Your task to perform on an android device: change timer sound Image 0: 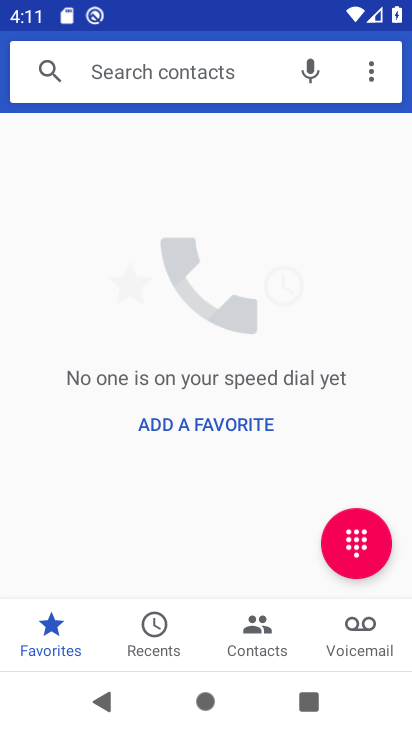
Step 0: press home button
Your task to perform on an android device: change timer sound Image 1: 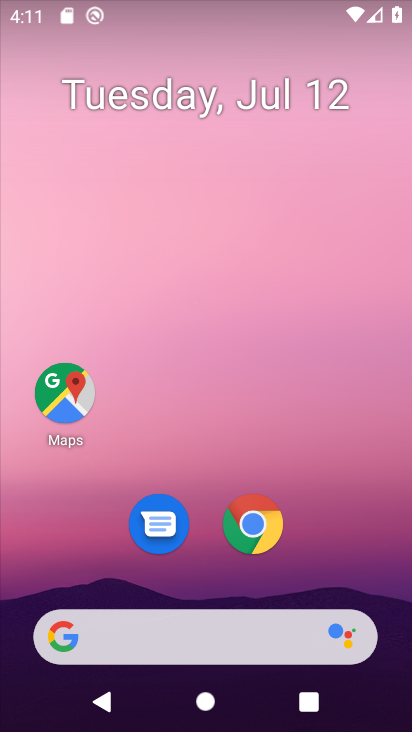
Step 1: drag from (310, 462) to (309, 8)
Your task to perform on an android device: change timer sound Image 2: 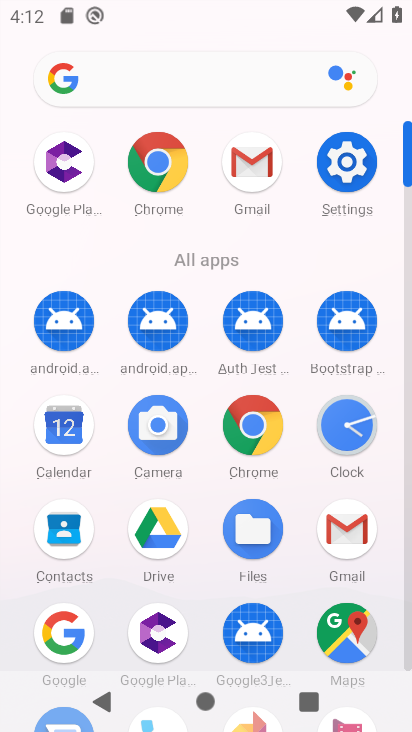
Step 2: click (353, 167)
Your task to perform on an android device: change timer sound Image 3: 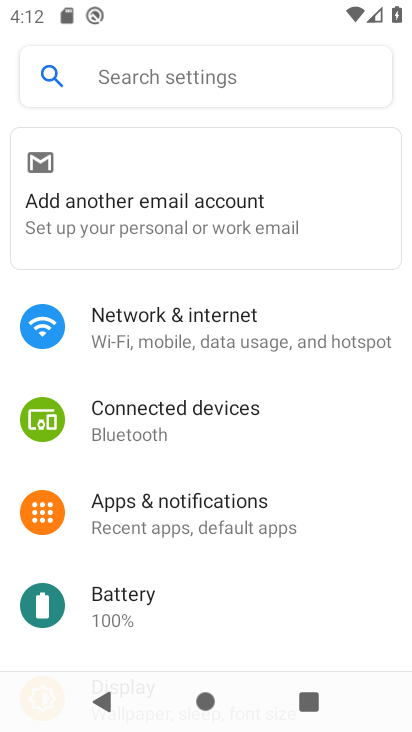
Step 3: drag from (329, 413) to (305, 0)
Your task to perform on an android device: change timer sound Image 4: 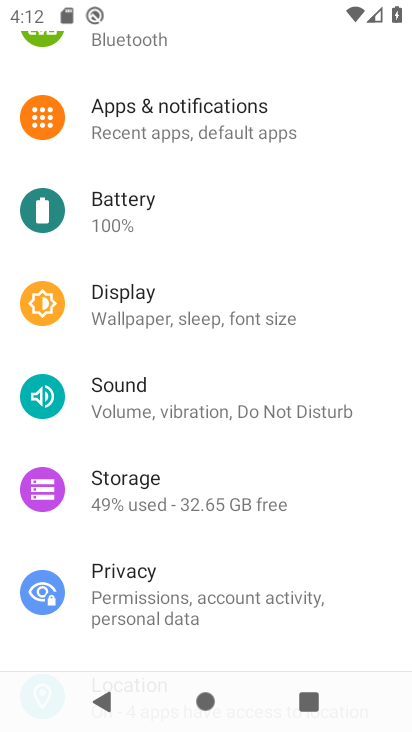
Step 4: press home button
Your task to perform on an android device: change timer sound Image 5: 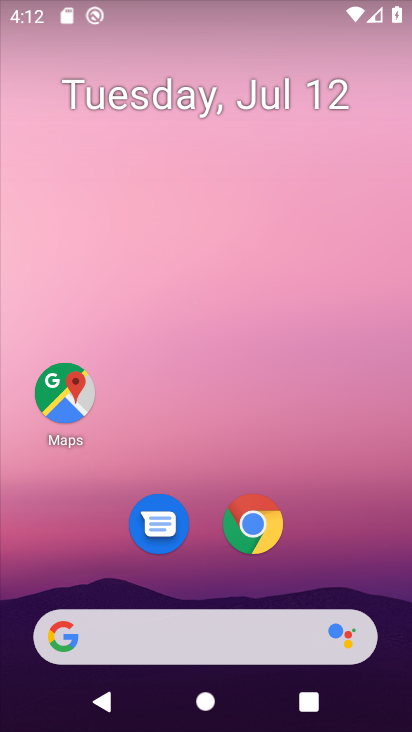
Step 5: drag from (346, 549) to (335, 9)
Your task to perform on an android device: change timer sound Image 6: 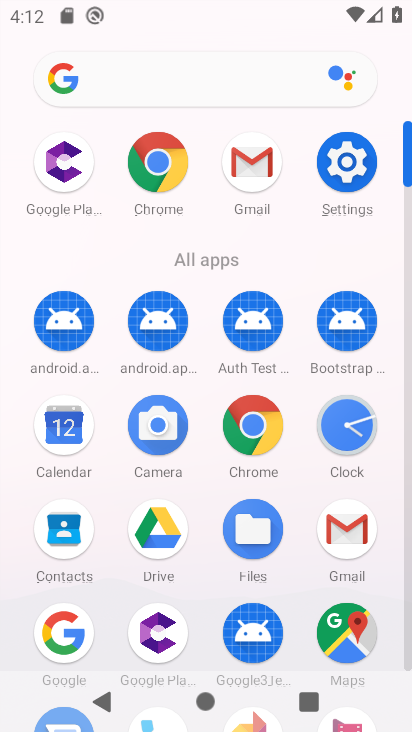
Step 6: click (345, 424)
Your task to perform on an android device: change timer sound Image 7: 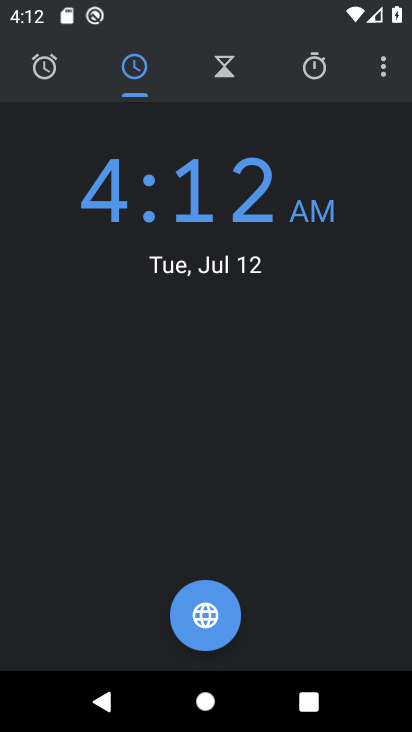
Step 7: click (382, 66)
Your task to perform on an android device: change timer sound Image 8: 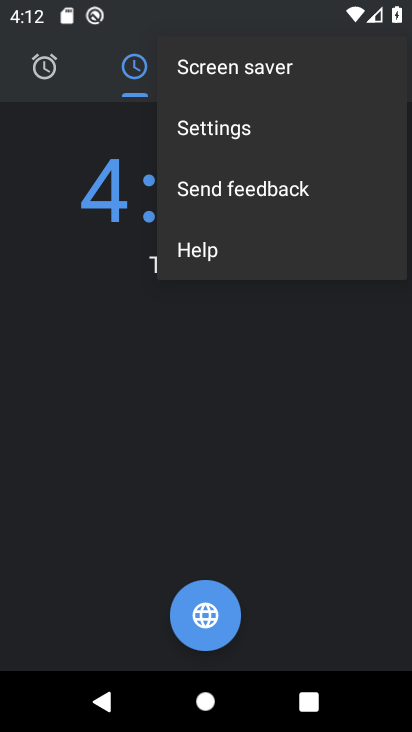
Step 8: click (249, 129)
Your task to perform on an android device: change timer sound Image 9: 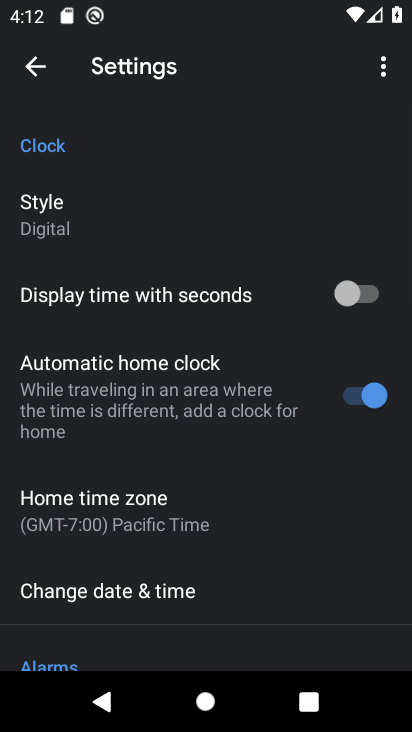
Step 9: drag from (237, 503) to (253, 1)
Your task to perform on an android device: change timer sound Image 10: 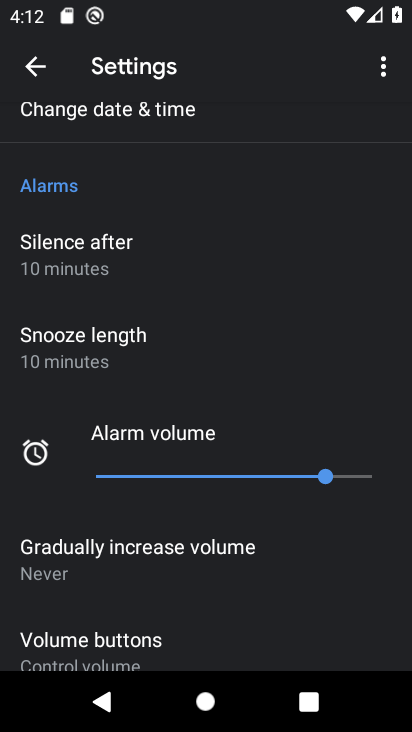
Step 10: drag from (192, 380) to (233, 15)
Your task to perform on an android device: change timer sound Image 11: 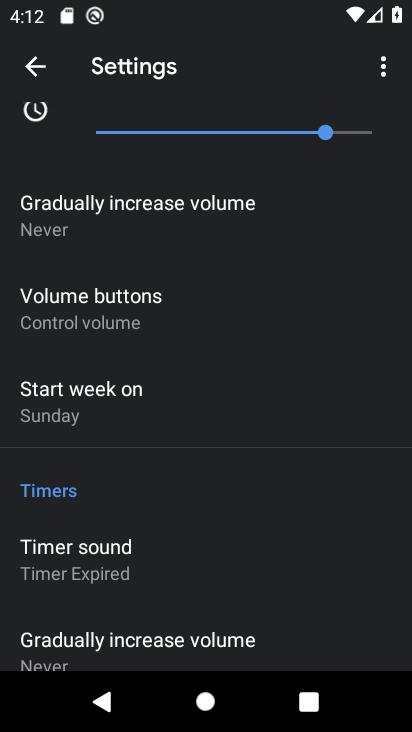
Step 11: click (126, 534)
Your task to perform on an android device: change timer sound Image 12: 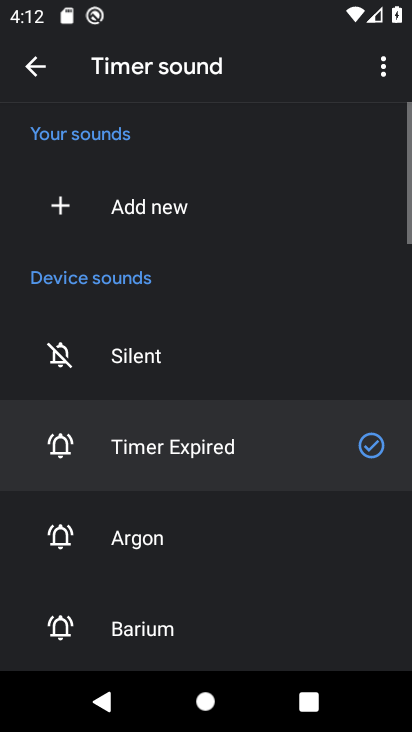
Step 12: click (133, 536)
Your task to perform on an android device: change timer sound Image 13: 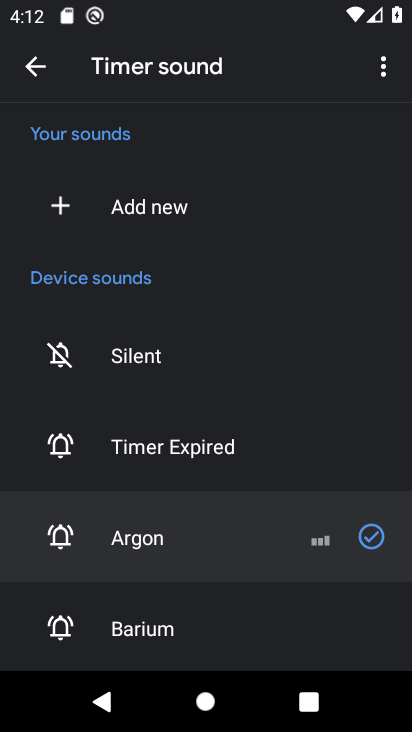
Step 13: task complete